Your task to perform on an android device: Show me popular videos on Youtube Image 0: 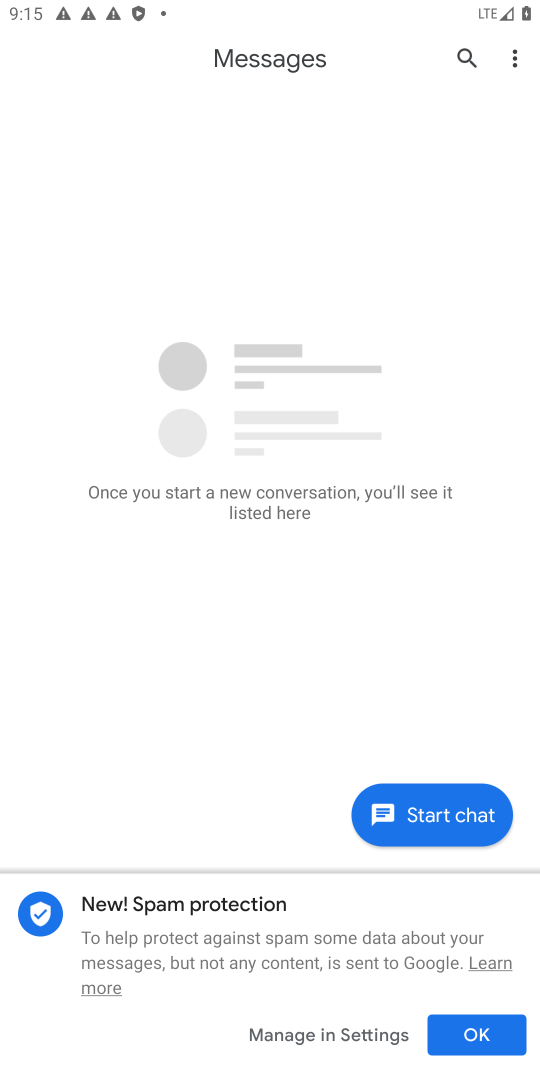
Step 0: press home button
Your task to perform on an android device: Show me popular videos on Youtube Image 1: 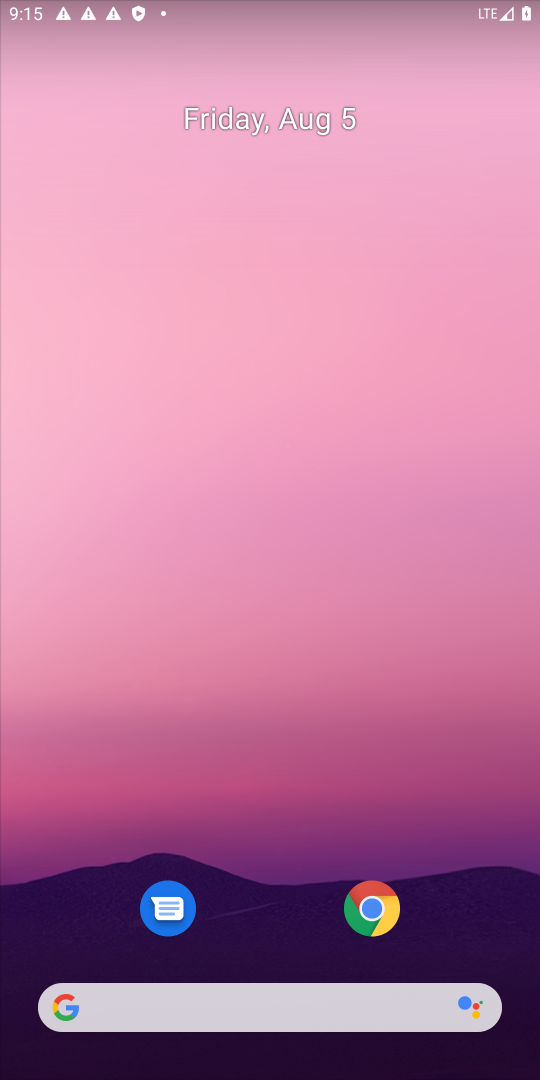
Step 1: drag from (270, 936) to (257, 131)
Your task to perform on an android device: Show me popular videos on Youtube Image 2: 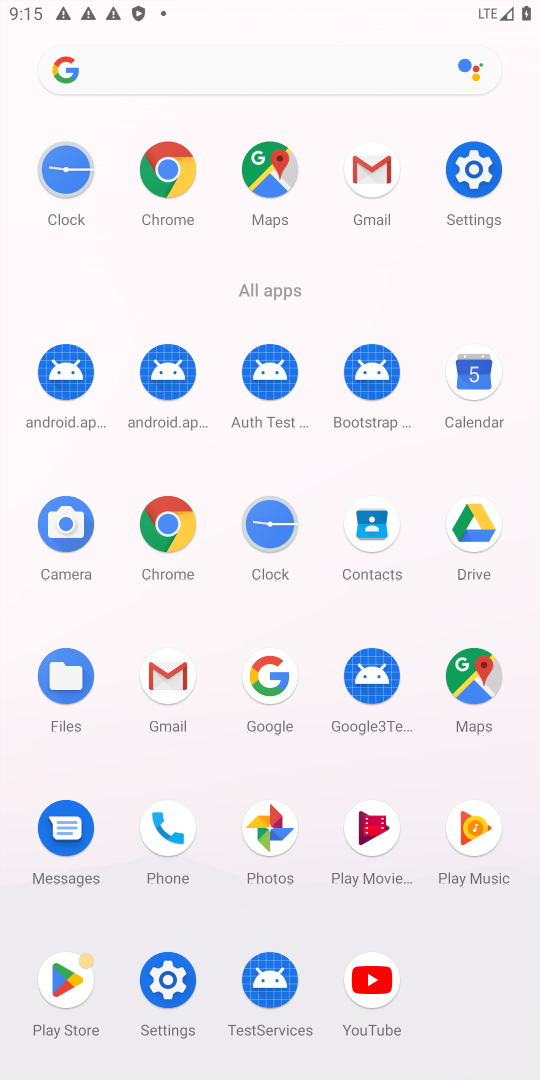
Step 2: click (365, 959)
Your task to perform on an android device: Show me popular videos on Youtube Image 3: 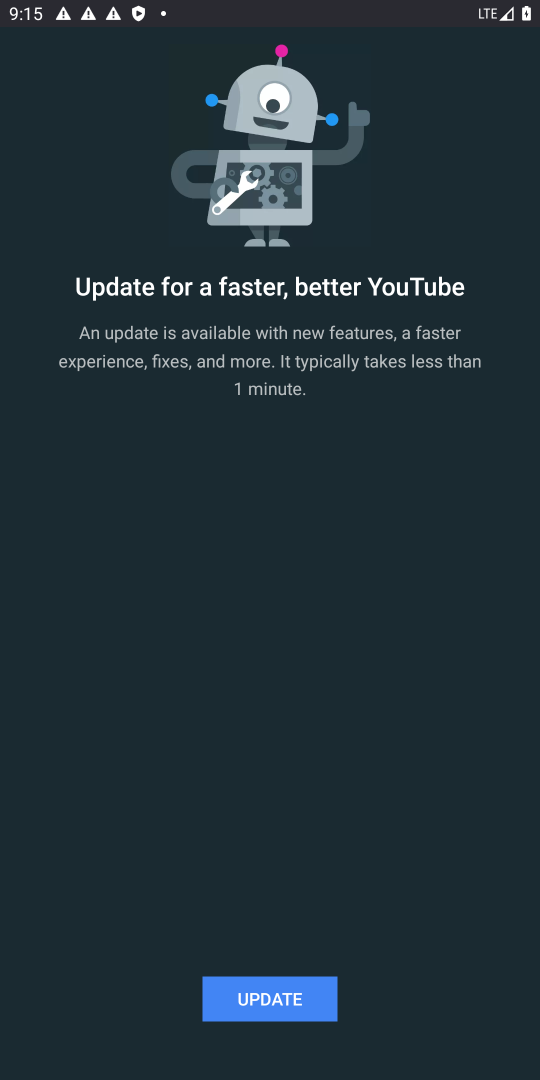
Step 3: click (312, 1018)
Your task to perform on an android device: Show me popular videos on Youtube Image 4: 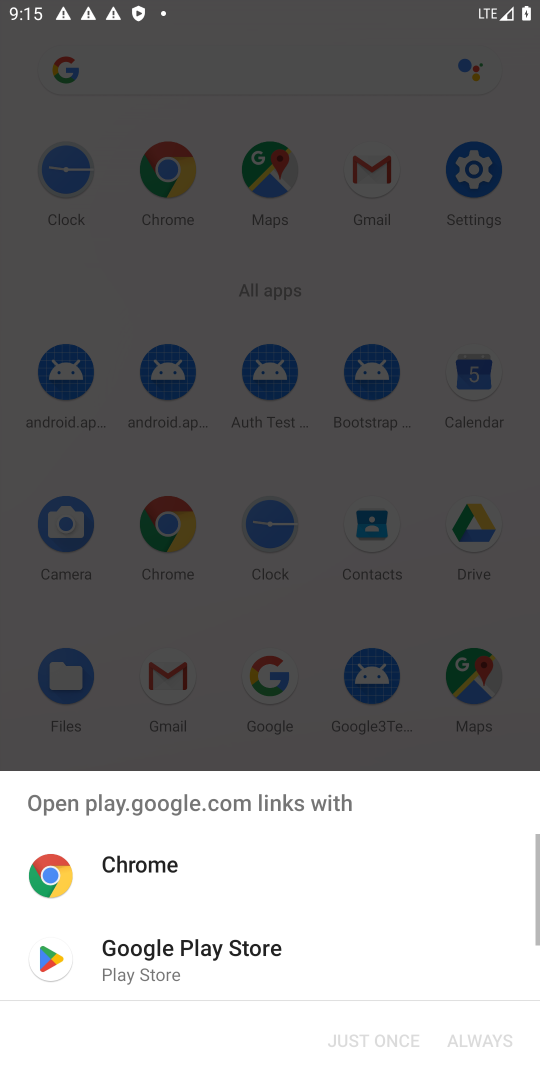
Step 4: click (296, 936)
Your task to perform on an android device: Show me popular videos on Youtube Image 5: 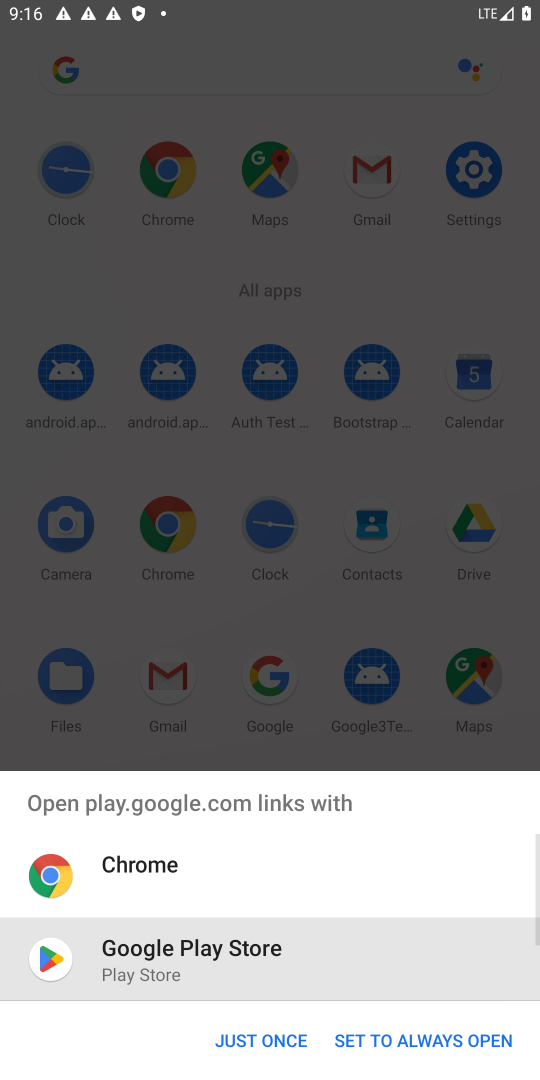
Step 5: click (288, 1028)
Your task to perform on an android device: Show me popular videos on Youtube Image 6: 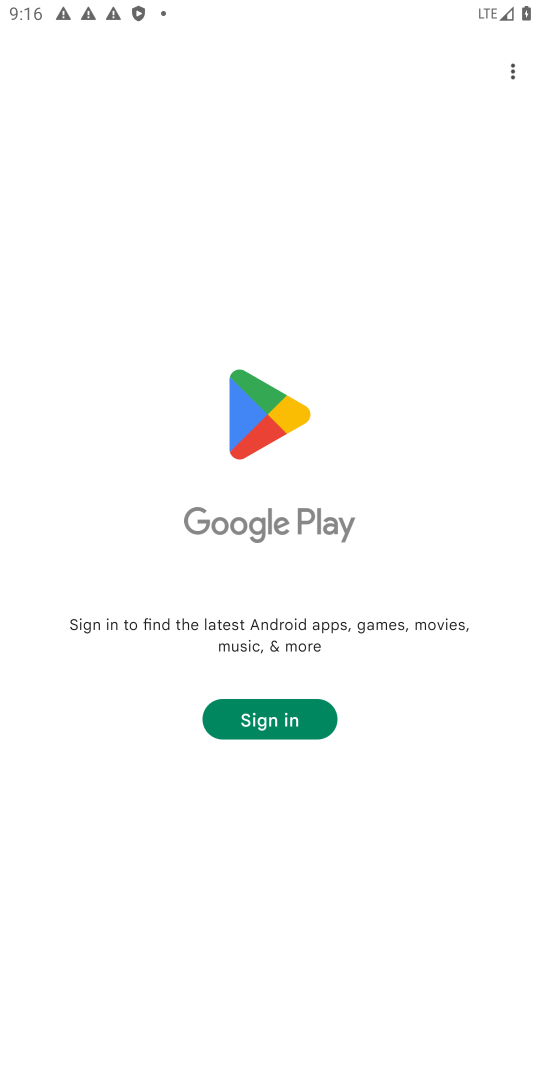
Step 6: task complete